Your task to perform on an android device: Go to CNN.com Image 0: 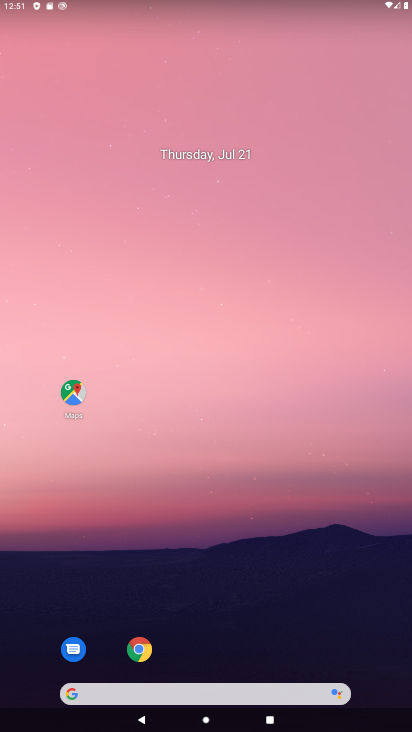
Step 0: click (140, 649)
Your task to perform on an android device: Go to CNN.com Image 1: 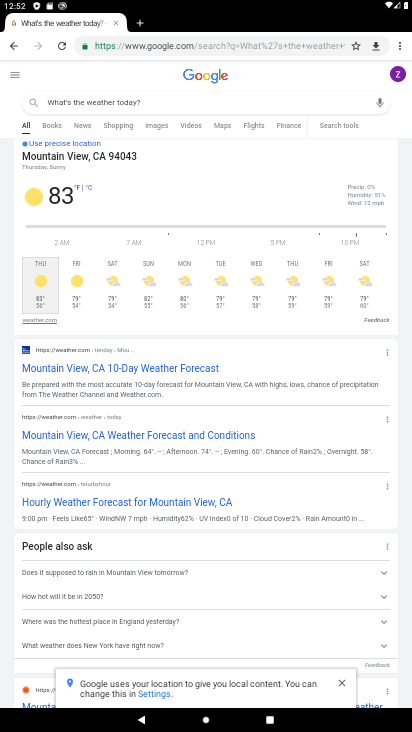
Step 1: click (194, 42)
Your task to perform on an android device: Go to CNN.com Image 2: 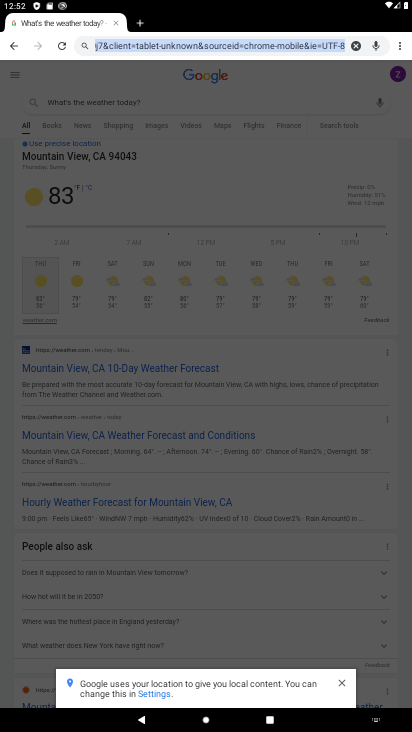
Step 2: type "cnn.com"
Your task to perform on an android device: Go to CNN.com Image 3: 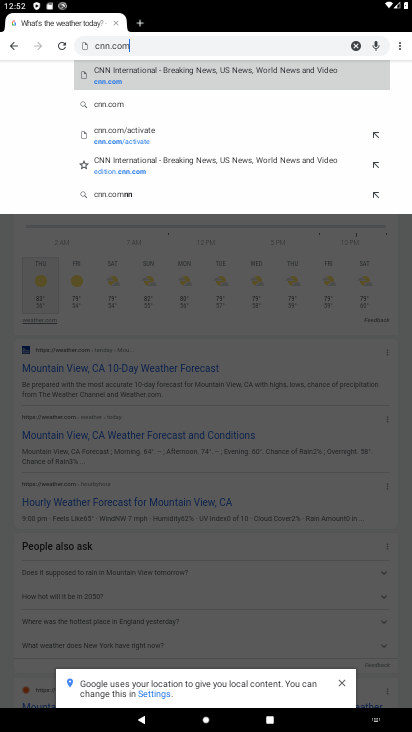
Step 3: click (360, 77)
Your task to perform on an android device: Go to CNN.com Image 4: 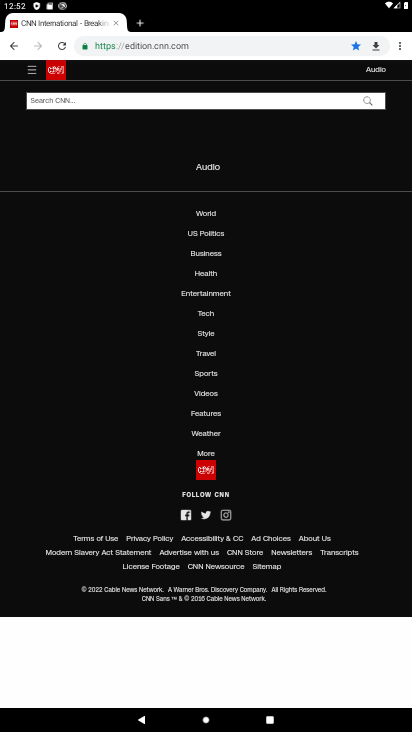
Step 4: task complete